Your task to perform on an android device: turn on the 12-hour format for clock Image 0: 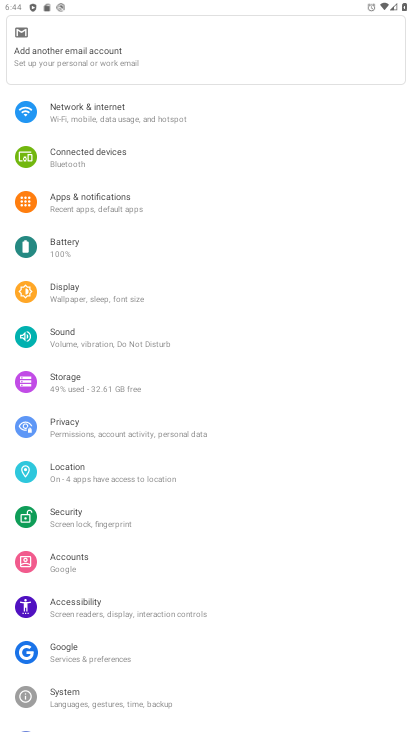
Step 0: press home button
Your task to perform on an android device: turn on the 12-hour format for clock Image 1: 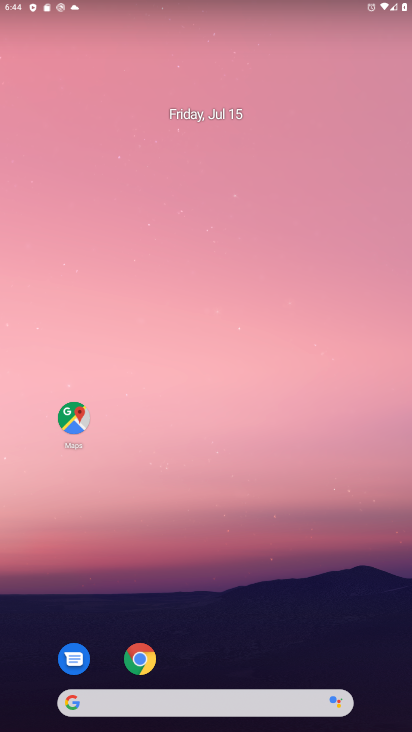
Step 1: drag from (389, 684) to (238, 85)
Your task to perform on an android device: turn on the 12-hour format for clock Image 2: 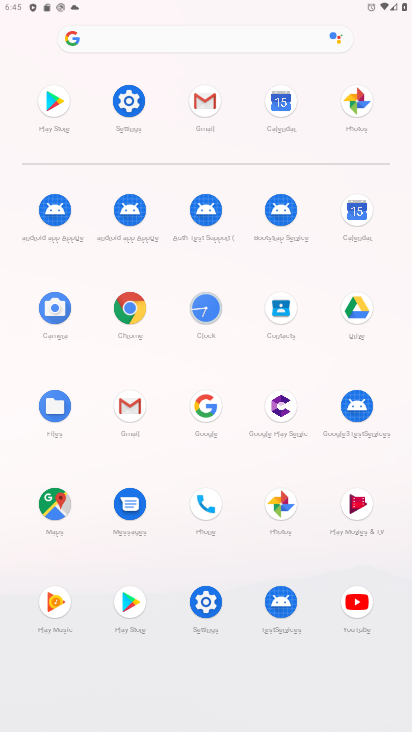
Step 2: click (204, 308)
Your task to perform on an android device: turn on the 12-hour format for clock Image 3: 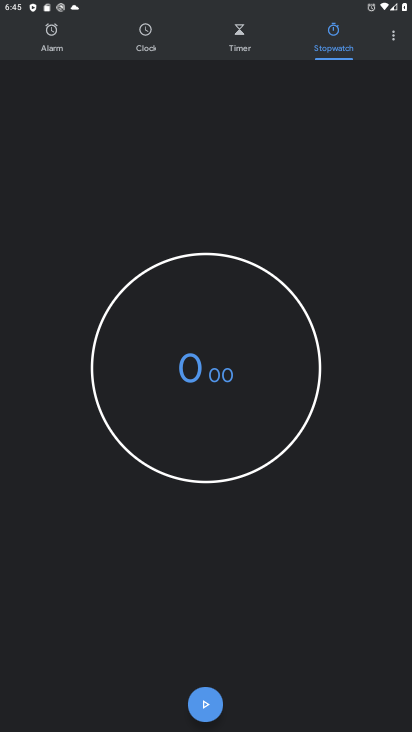
Step 3: click (393, 41)
Your task to perform on an android device: turn on the 12-hour format for clock Image 4: 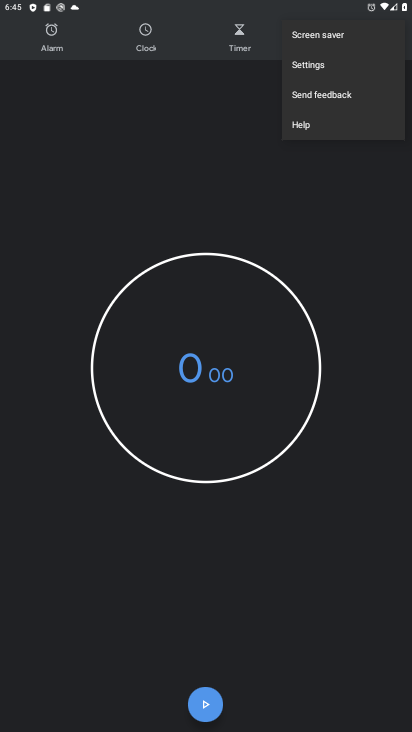
Step 4: click (315, 61)
Your task to perform on an android device: turn on the 12-hour format for clock Image 5: 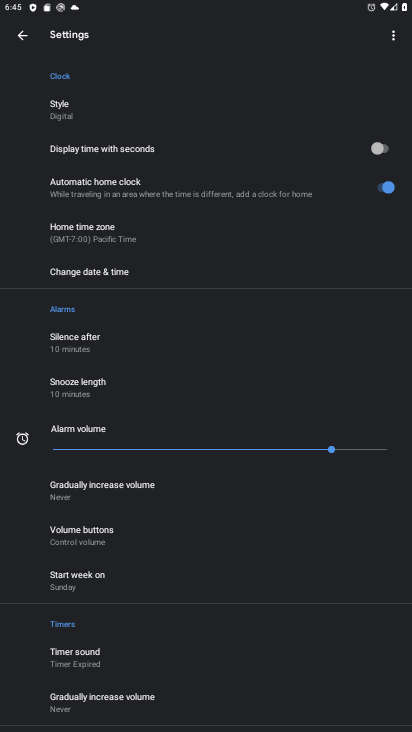
Step 5: click (101, 273)
Your task to perform on an android device: turn on the 12-hour format for clock Image 6: 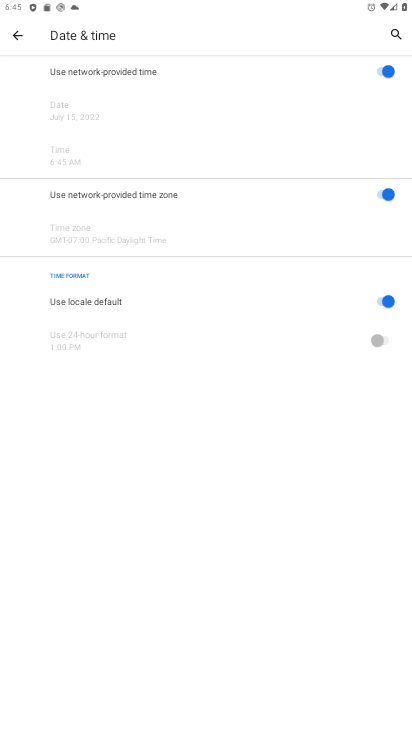
Step 6: task complete